Your task to perform on an android device: Do I have any events tomorrow? Image 0: 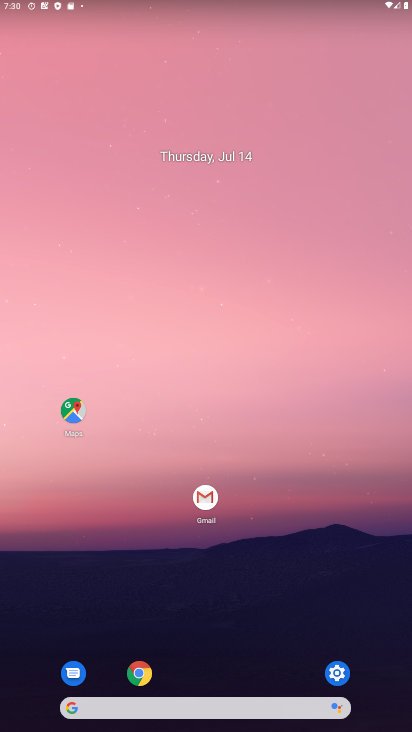
Step 0: click (191, 707)
Your task to perform on an android device: Do I have any events tomorrow? Image 1: 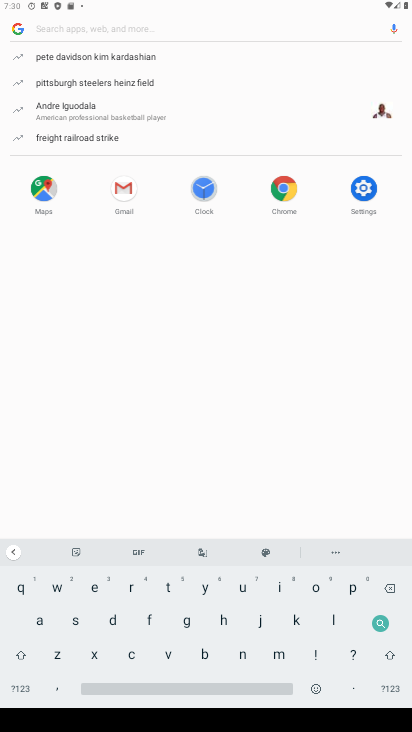
Step 1: press home button
Your task to perform on an android device: Do I have any events tomorrow? Image 2: 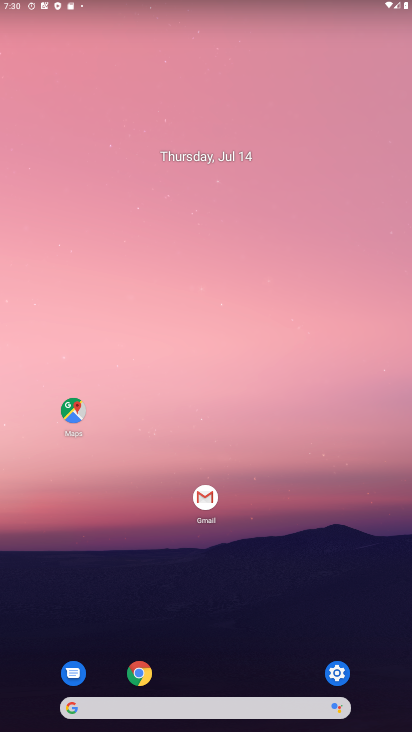
Step 2: drag from (225, 719) to (271, 294)
Your task to perform on an android device: Do I have any events tomorrow? Image 3: 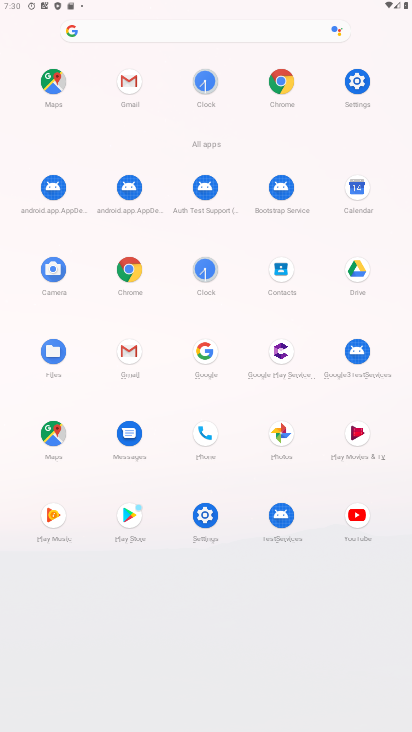
Step 3: click (360, 194)
Your task to perform on an android device: Do I have any events tomorrow? Image 4: 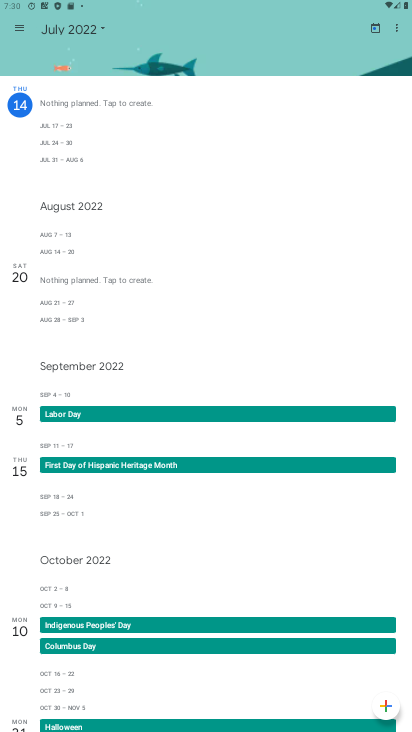
Step 4: click (16, 21)
Your task to perform on an android device: Do I have any events tomorrow? Image 5: 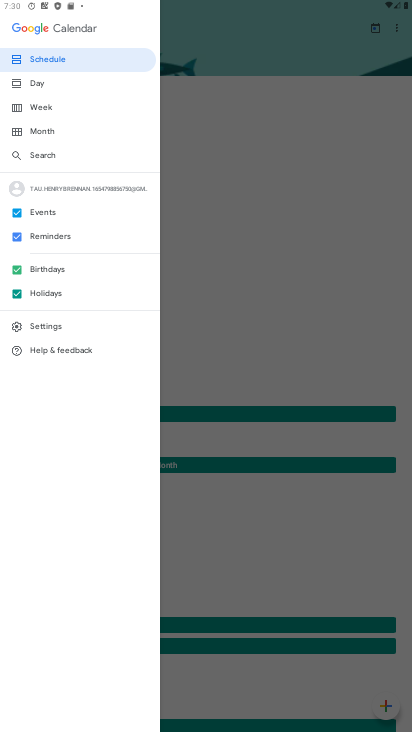
Step 5: click (69, 55)
Your task to perform on an android device: Do I have any events tomorrow? Image 6: 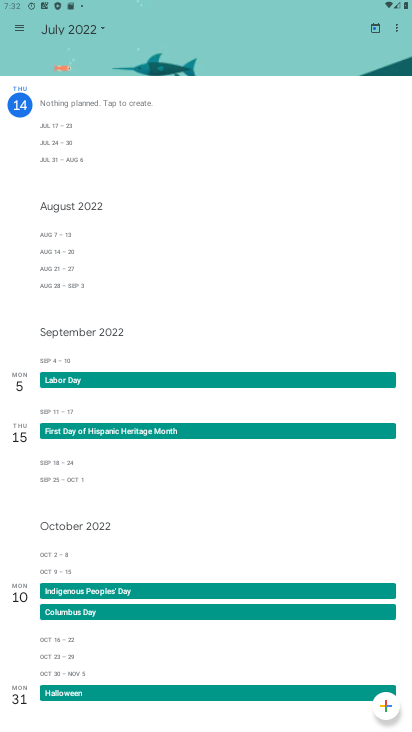
Step 6: task complete